Your task to perform on an android device: empty trash in google photos Image 0: 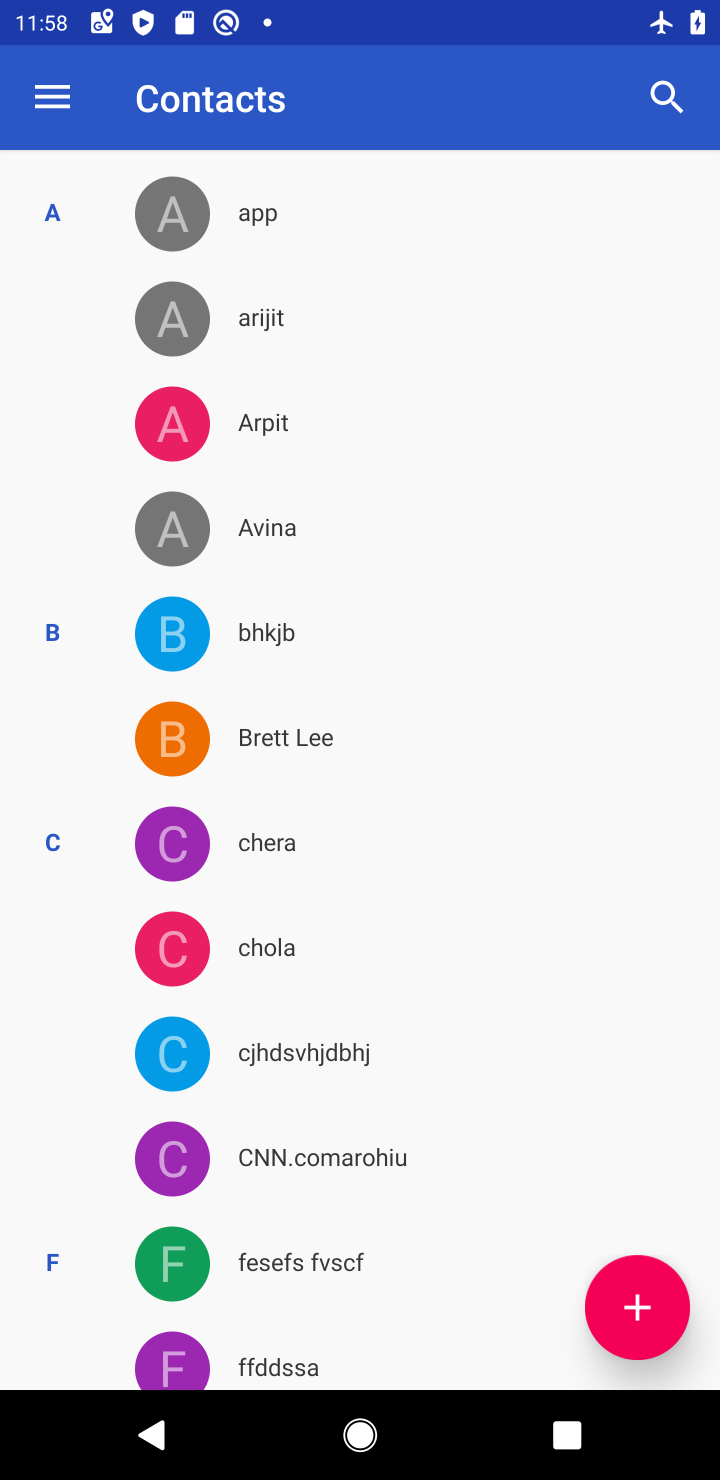
Step 0: press home button
Your task to perform on an android device: empty trash in google photos Image 1: 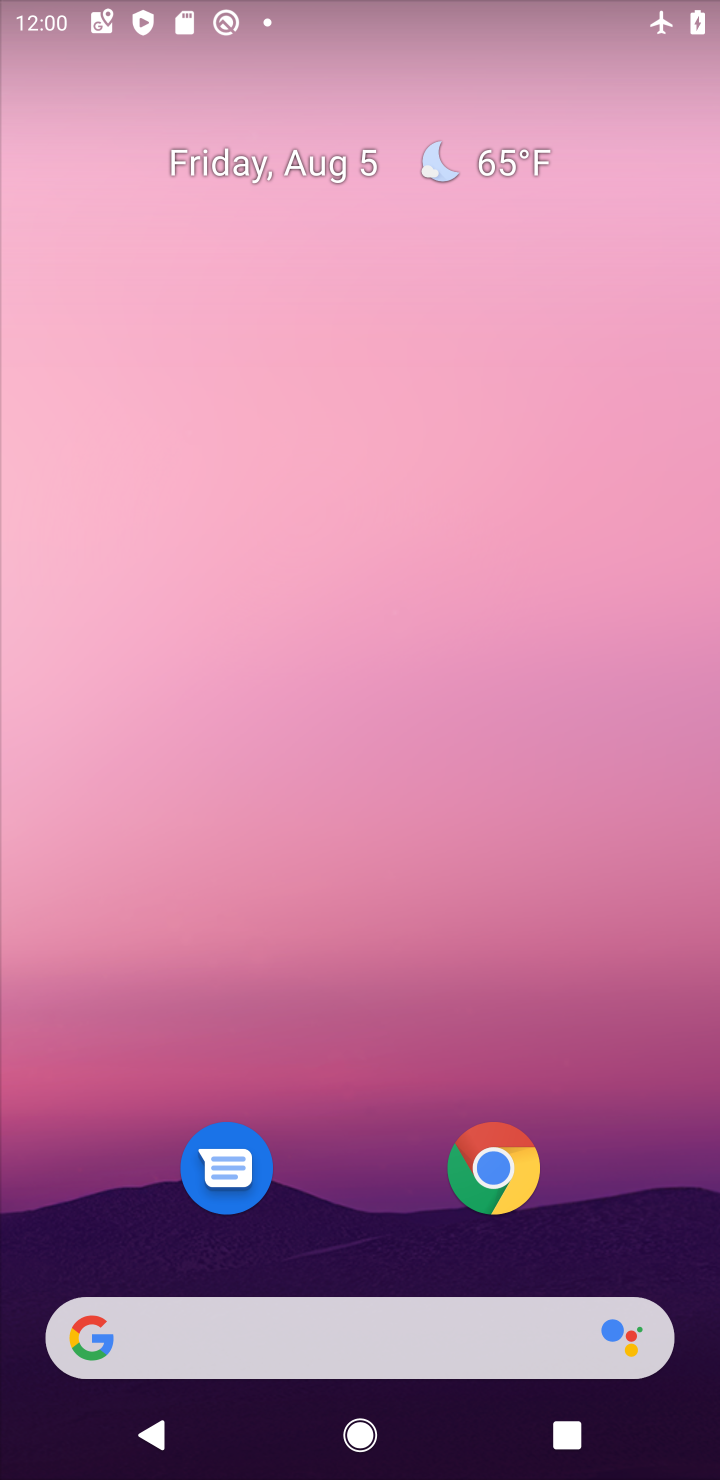
Step 1: drag from (686, 1309) to (348, 166)
Your task to perform on an android device: empty trash in google photos Image 2: 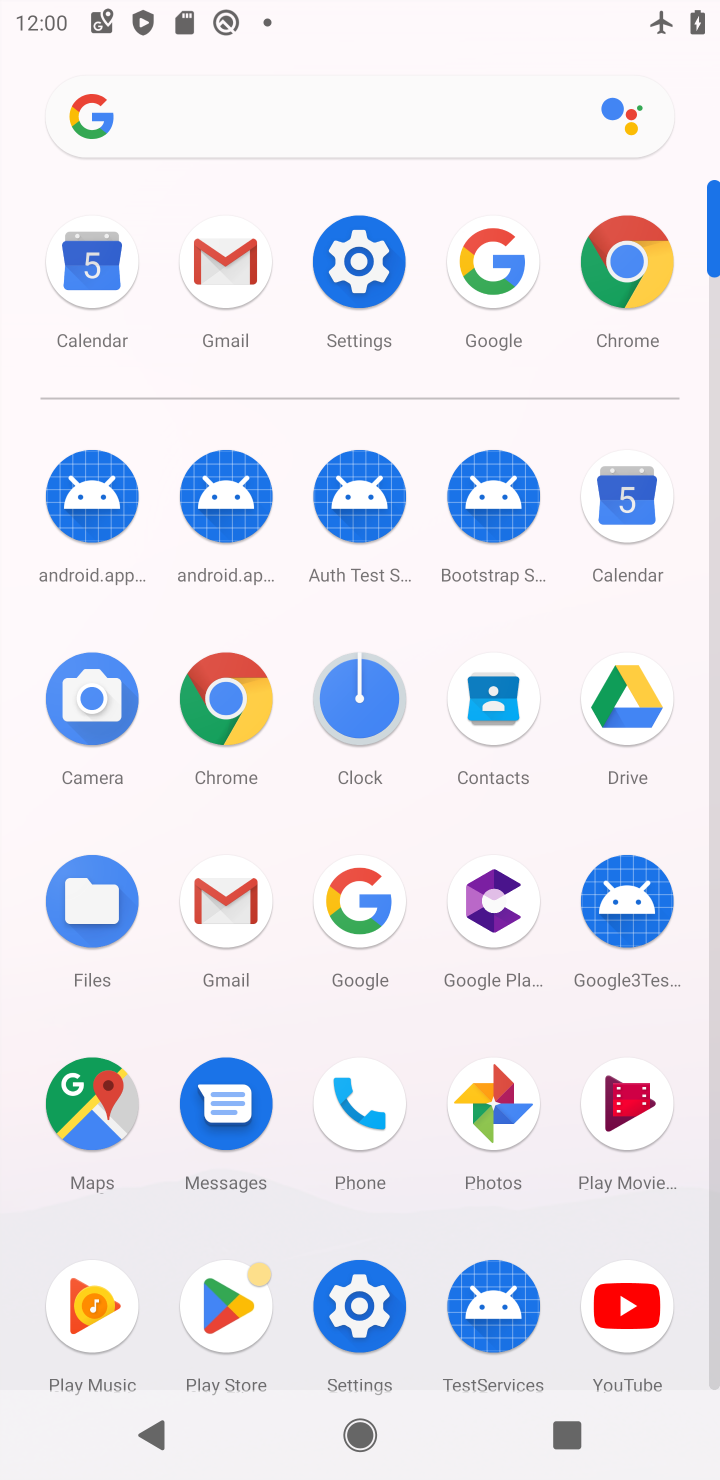
Step 2: click (470, 1131)
Your task to perform on an android device: empty trash in google photos Image 3: 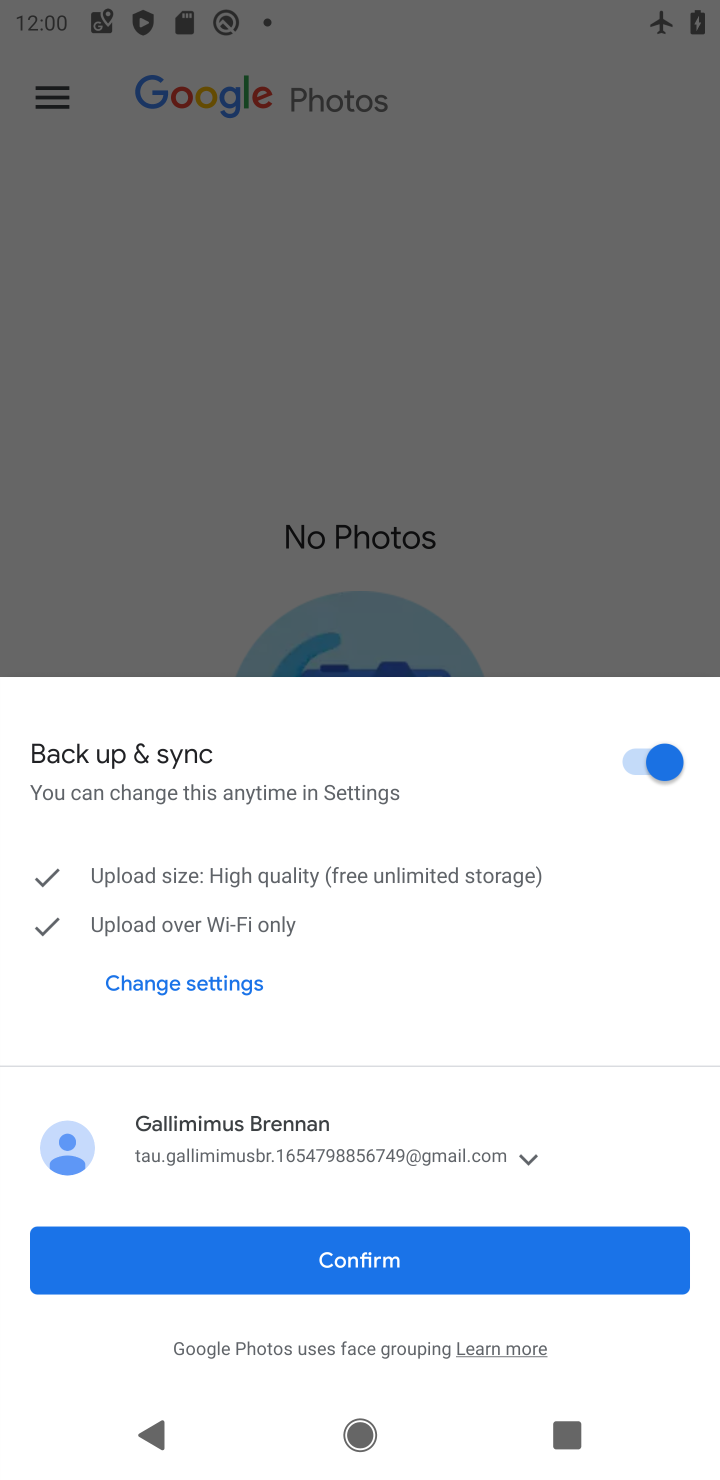
Step 3: click (358, 1255)
Your task to perform on an android device: empty trash in google photos Image 4: 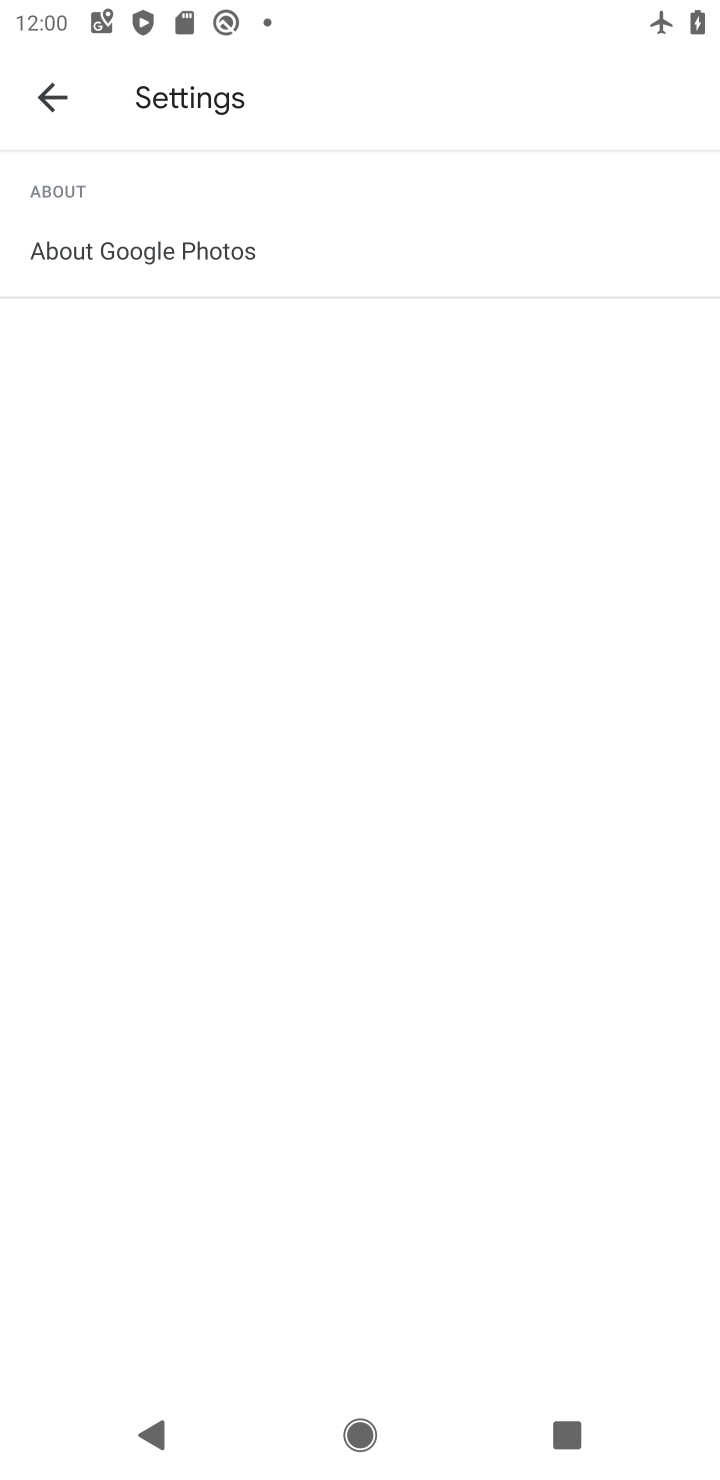
Step 4: task complete